Your task to perform on an android device: turn vacation reply on in the gmail app Image 0: 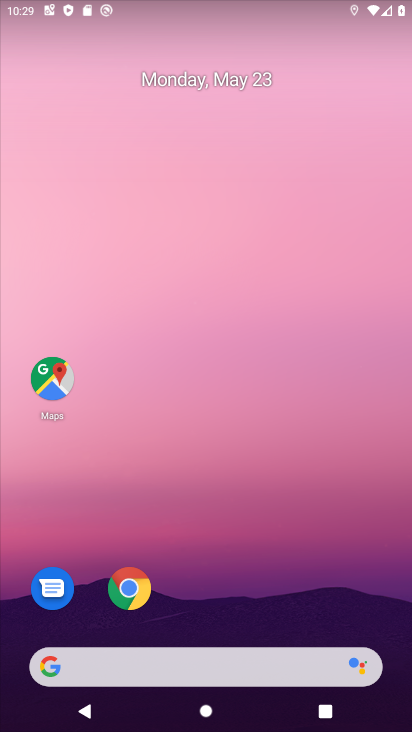
Step 0: drag from (305, 568) to (328, 94)
Your task to perform on an android device: turn vacation reply on in the gmail app Image 1: 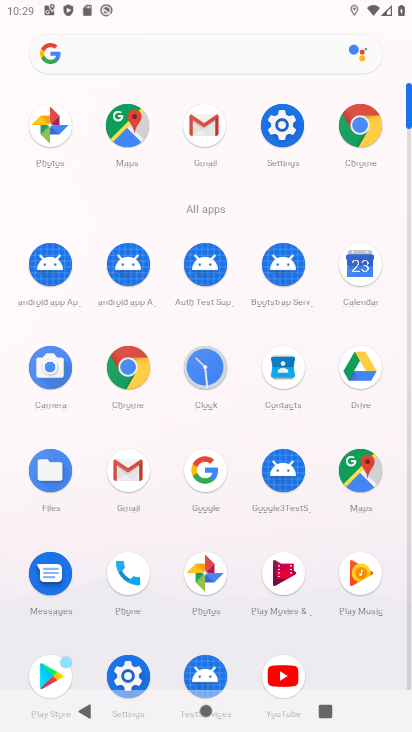
Step 1: click (198, 114)
Your task to perform on an android device: turn vacation reply on in the gmail app Image 2: 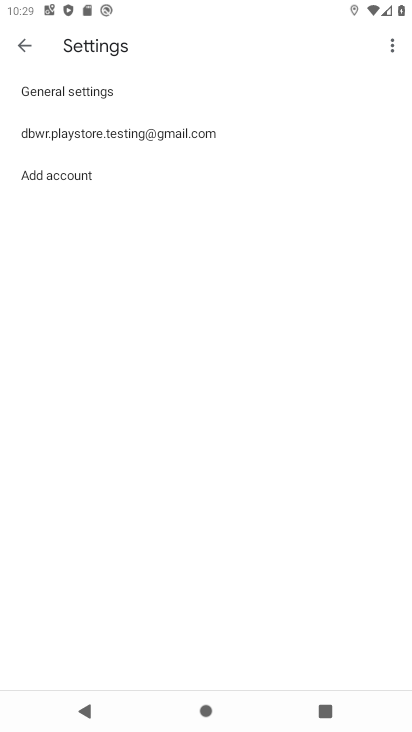
Step 2: click (76, 130)
Your task to perform on an android device: turn vacation reply on in the gmail app Image 3: 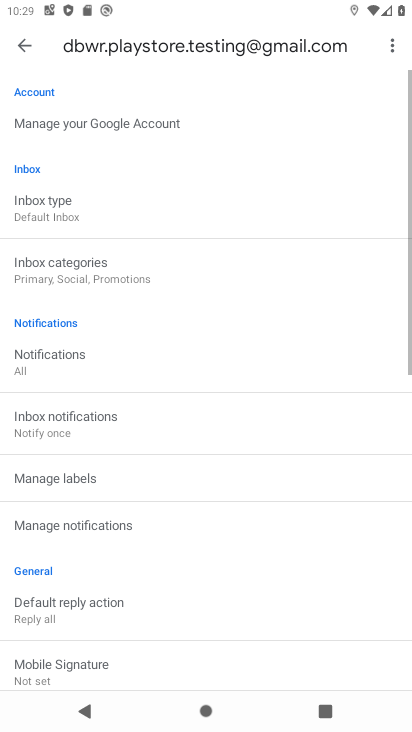
Step 3: drag from (253, 568) to (303, 104)
Your task to perform on an android device: turn vacation reply on in the gmail app Image 4: 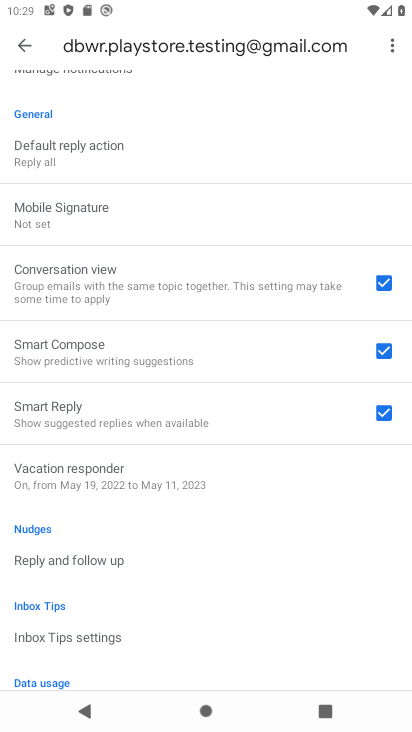
Step 4: click (171, 482)
Your task to perform on an android device: turn vacation reply on in the gmail app Image 5: 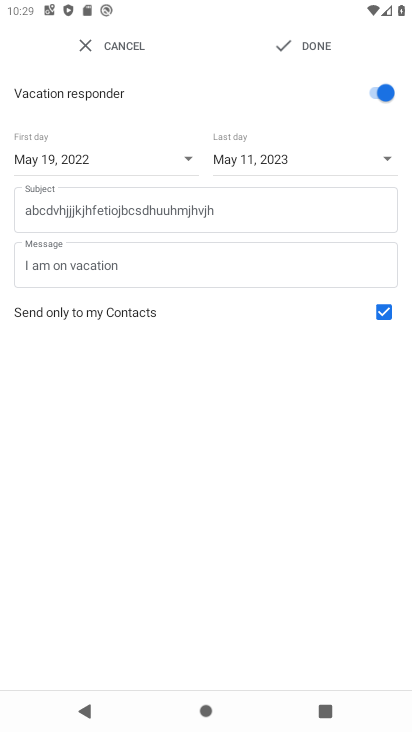
Step 5: click (371, 90)
Your task to perform on an android device: turn vacation reply on in the gmail app Image 6: 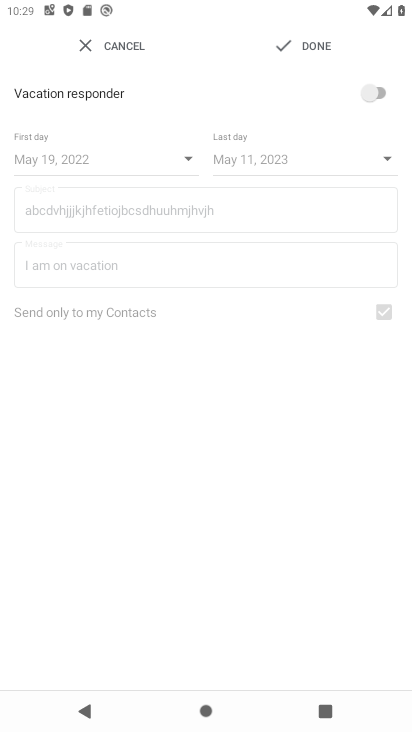
Step 6: task complete